Your task to perform on an android device: manage bookmarks in the chrome app Image 0: 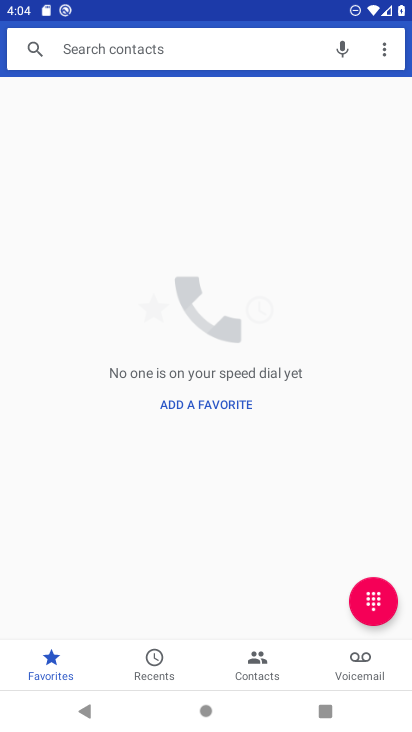
Step 0: press home button
Your task to perform on an android device: manage bookmarks in the chrome app Image 1: 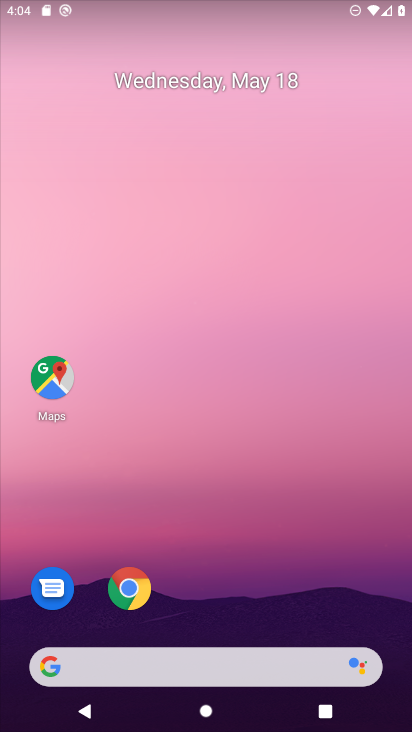
Step 1: click (135, 587)
Your task to perform on an android device: manage bookmarks in the chrome app Image 2: 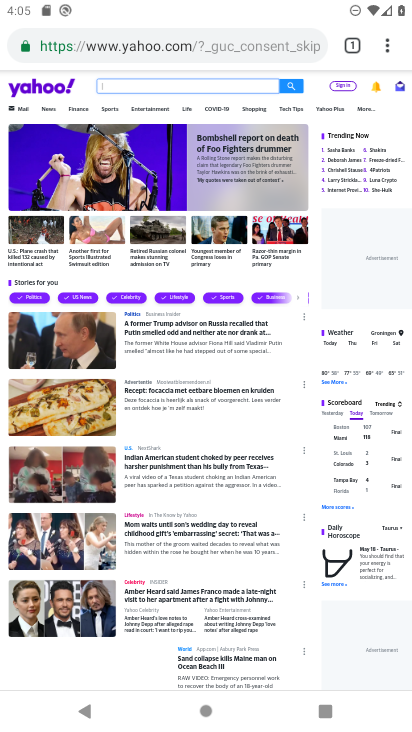
Step 2: click (381, 51)
Your task to perform on an android device: manage bookmarks in the chrome app Image 3: 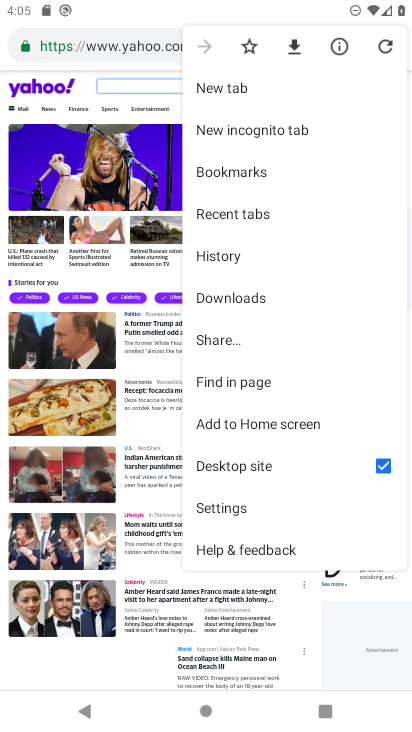
Step 3: click (244, 185)
Your task to perform on an android device: manage bookmarks in the chrome app Image 4: 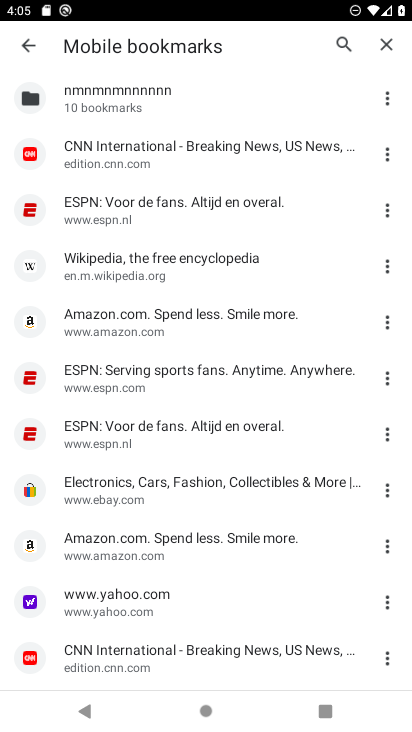
Step 4: click (378, 106)
Your task to perform on an android device: manage bookmarks in the chrome app Image 5: 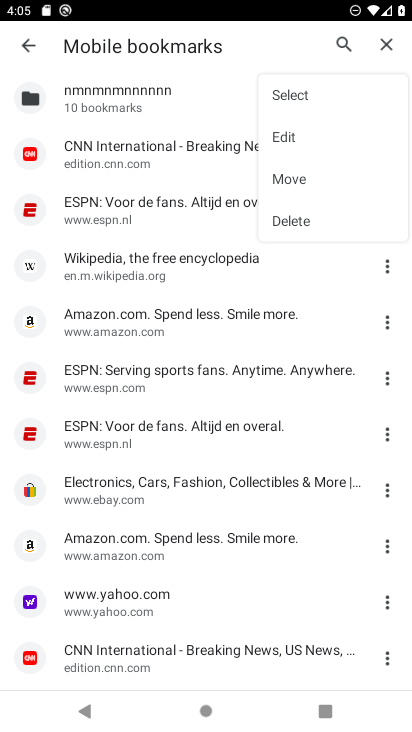
Step 5: click (294, 226)
Your task to perform on an android device: manage bookmarks in the chrome app Image 6: 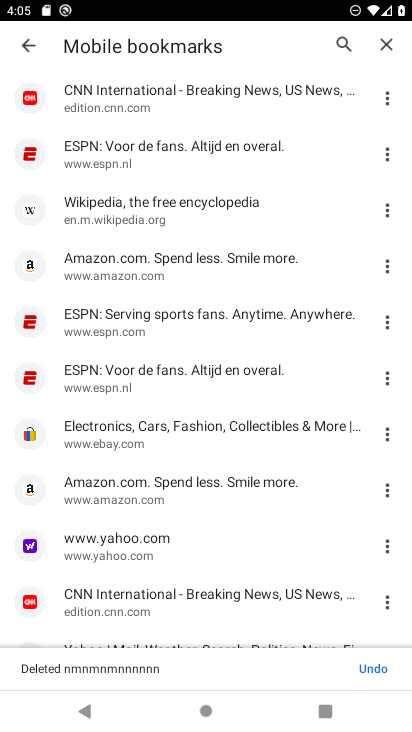
Step 6: task complete